Your task to perform on an android device: change notification settings in the gmail app Image 0: 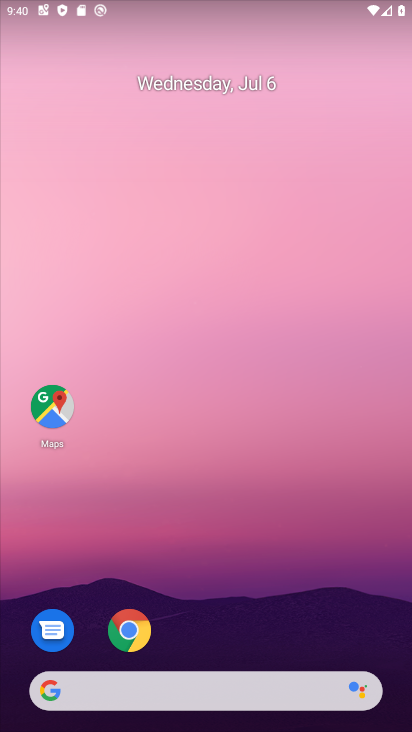
Step 0: drag from (314, 207) to (307, 77)
Your task to perform on an android device: change notification settings in the gmail app Image 1: 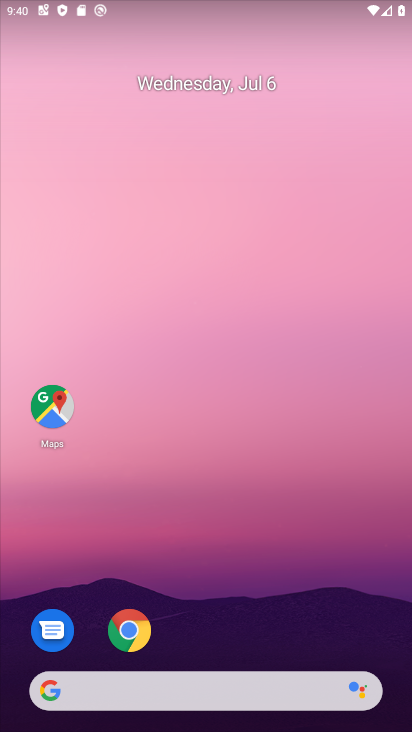
Step 1: drag from (349, 626) to (303, 113)
Your task to perform on an android device: change notification settings in the gmail app Image 2: 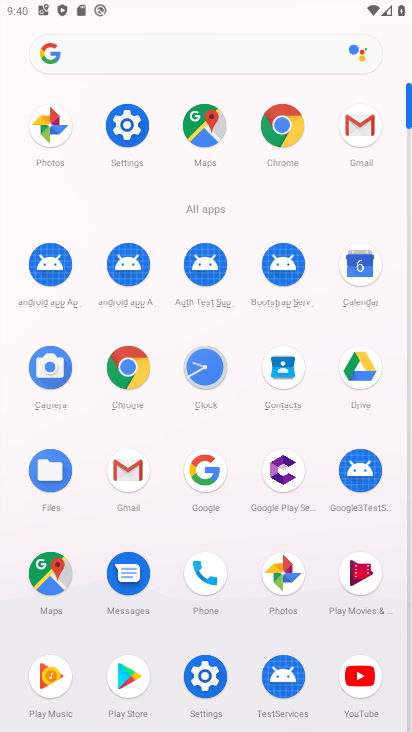
Step 2: click (125, 468)
Your task to perform on an android device: change notification settings in the gmail app Image 3: 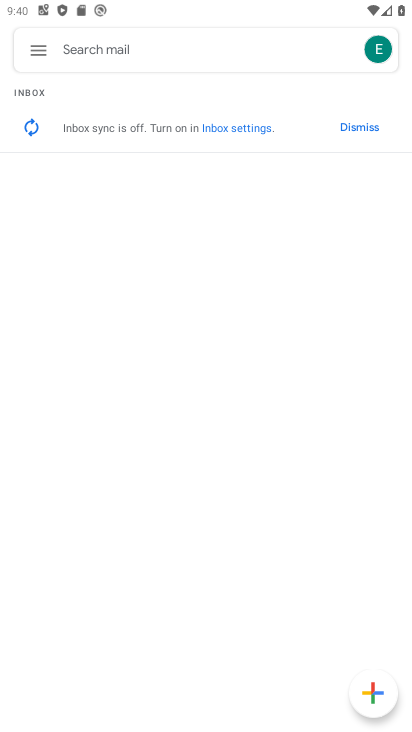
Step 3: click (41, 52)
Your task to perform on an android device: change notification settings in the gmail app Image 4: 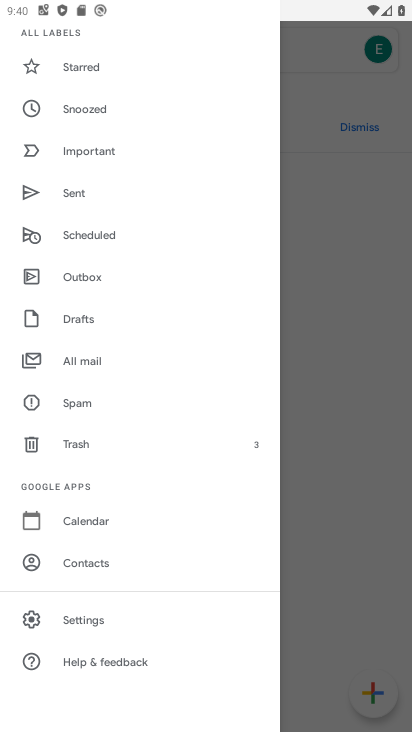
Step 4: click (81, 616)
Your task to perform on an android device: change notification settings in the gmail app Image 5: 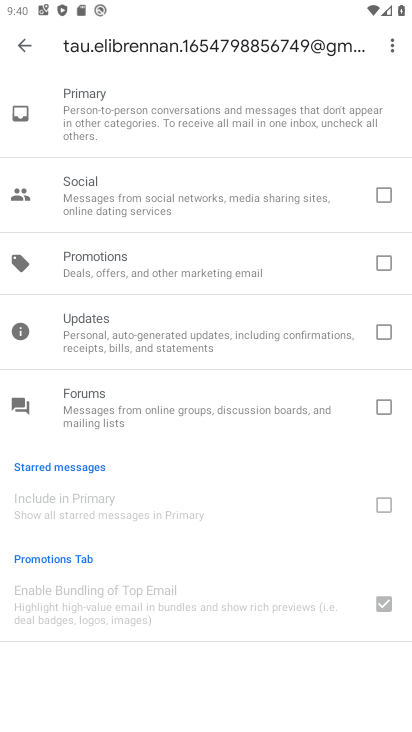
Step 5: press back button
Your task to perform on an android device: change notification settings in the gmail app Image 6: 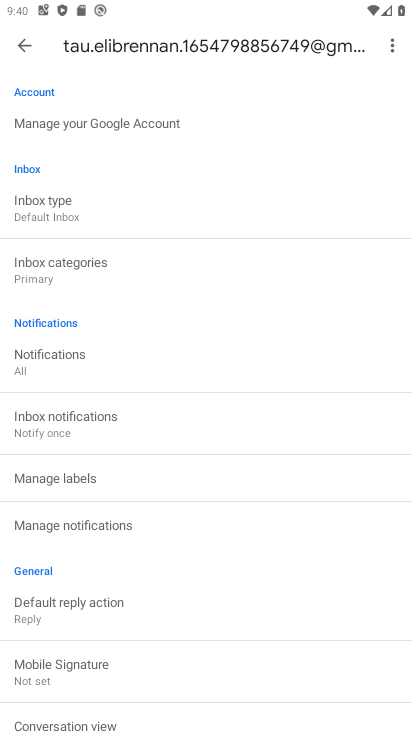
Step 6: click (78, 522)
Your task to perform on an android device: change notification settings in the gmail app Image 7: 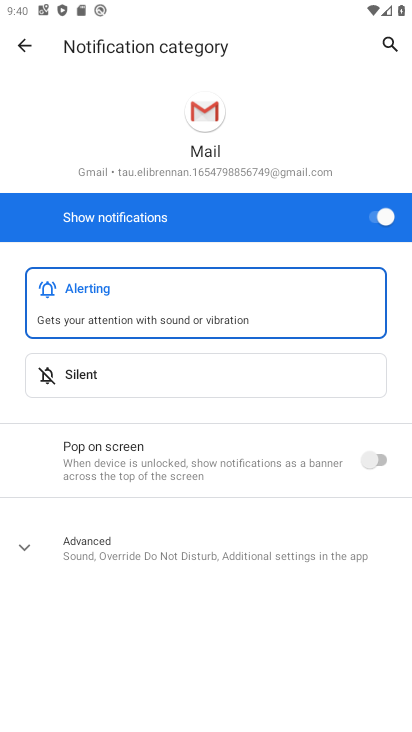
Step 7: click (370, 218)
Your task to perform on an android device: change notification settings in the gmail app Image 8: 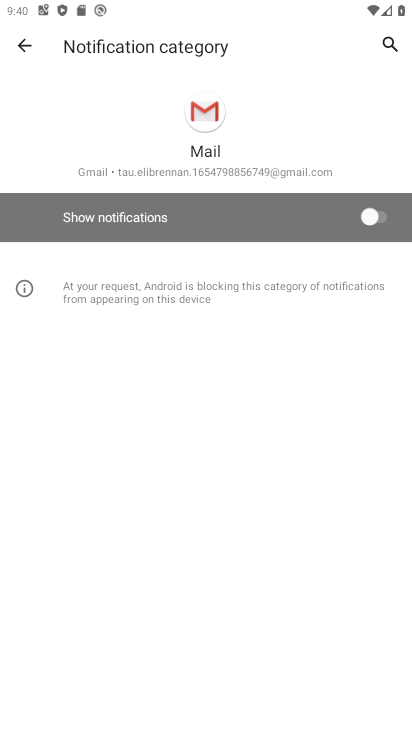
Step 8: task complete